Your task to perform on an android device: Is it going to rain today? Image 0: 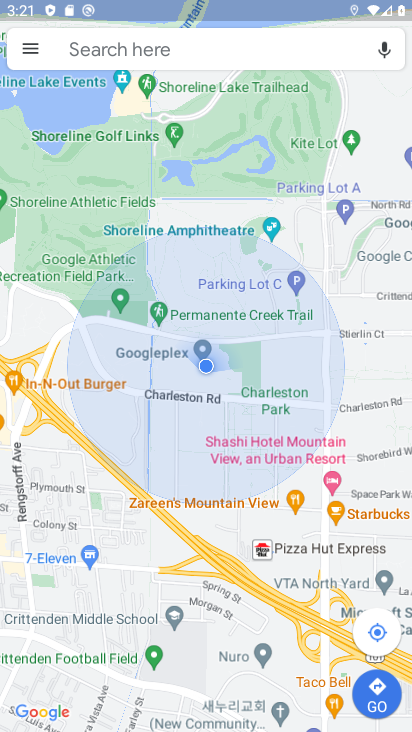
Step 0: press home button
Your task to perform on an android device: Is it going to rain today? Image 1: 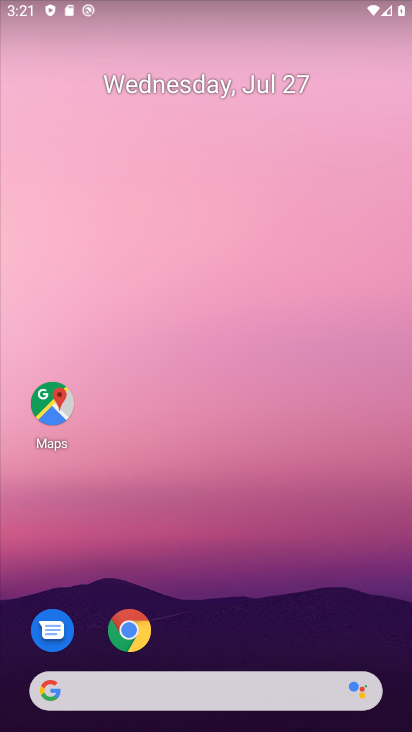
Step 1: click (163, 687)
Your task to perform on an android device: Is it going to rain today? Image 2: 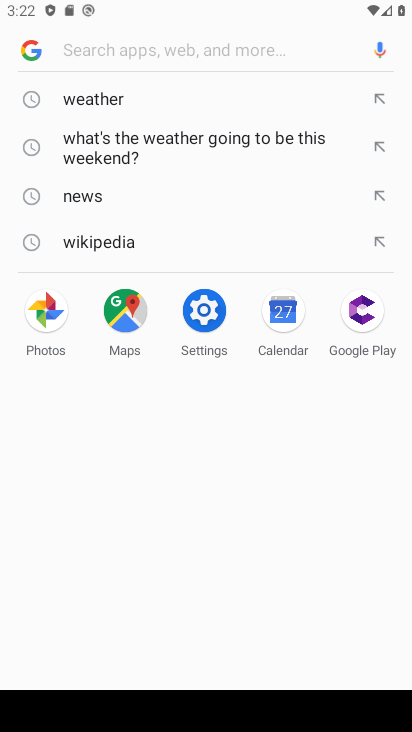
Step 2: click (114, 99)
Your task to perform on an android device: Is it going to rain today? Image 3: 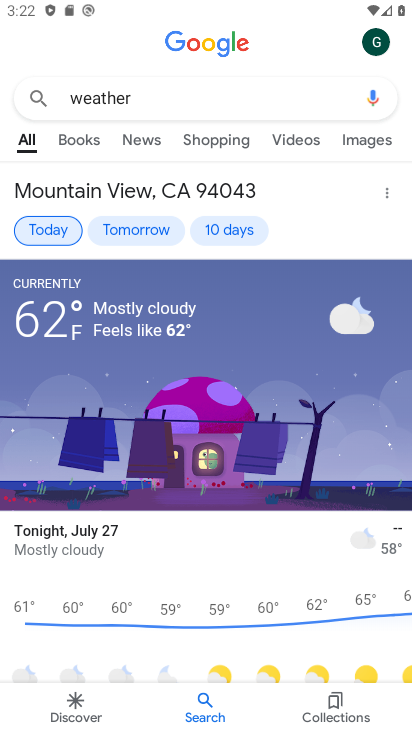
Step 3: click (231, 233)
Your task to perform on an android device: Is it going to rain today? Image 4: 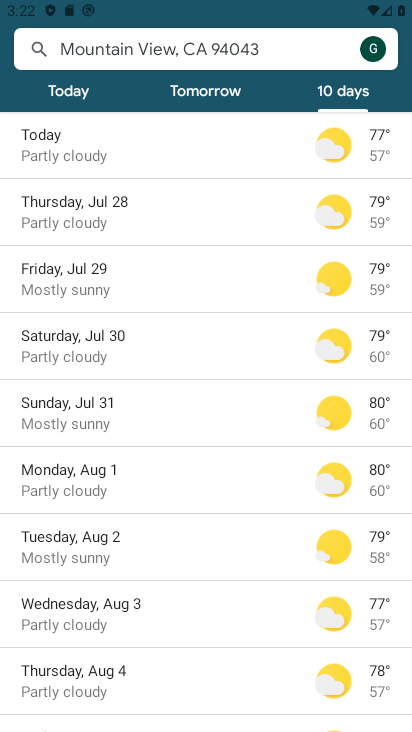
Step 4: click (75, 409)
Your task to perform on an android device: Is it going to rain today? Image 5: 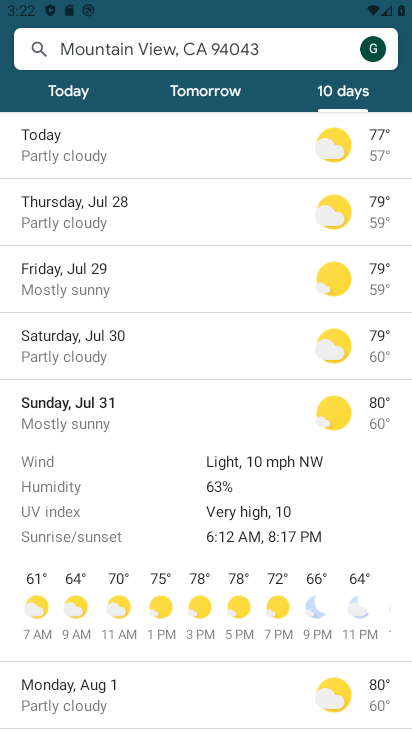
Step 5: click (86, 347)
Your task to perform on an android device: Is it going to rain today? Image 6: 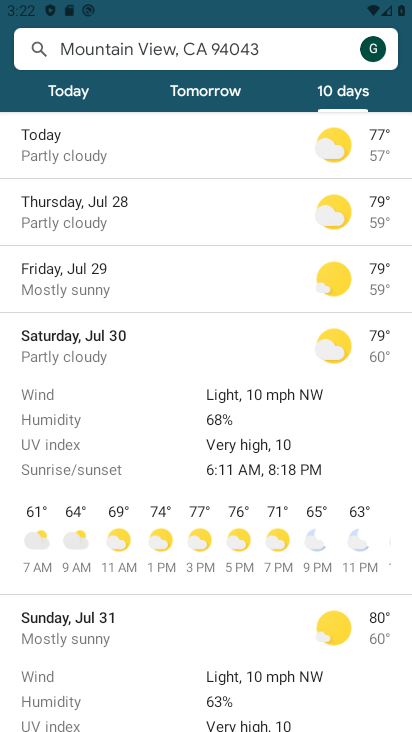
Step 6: task complete